Your task to perform on an android device: Open Amazon Image 0: 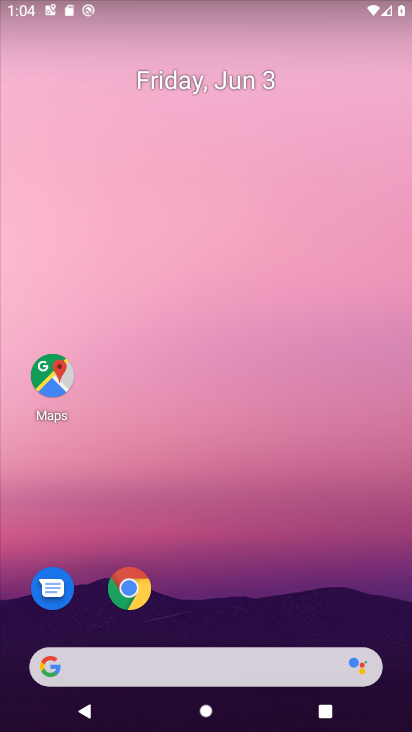
Step 0: drag from (246, 519) to (261, 116)
Your task to perform on an android device: Open Amazon Image 1: 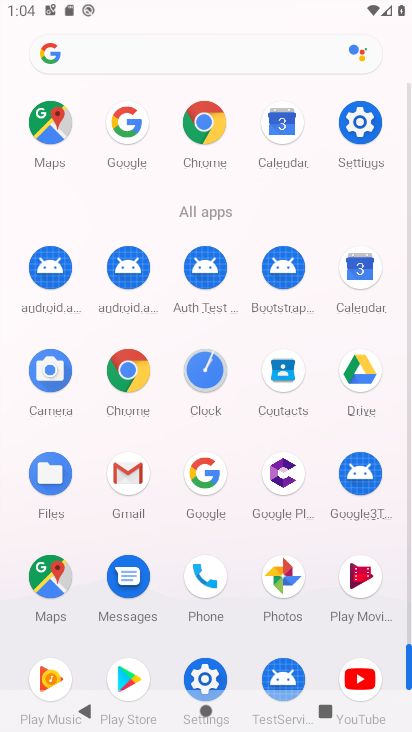
Step 1: click (205, 149)
Your task to perform on an android device: Open Amazon Image 2: 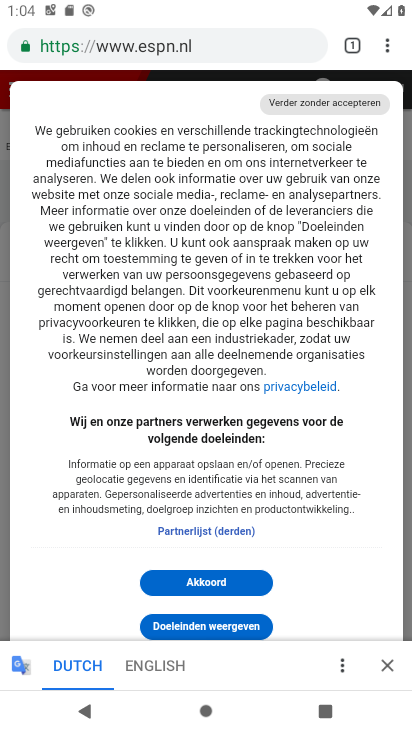
Step 2: click (257, 45)
Your task to perform on an android device: Open Amazon Image 3: 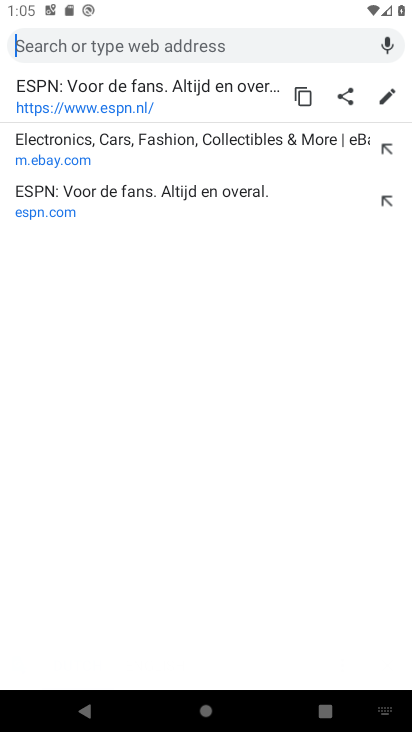
Step 3: type "amazon"
Your task to perform on an android device: Open Amazon Image 4: 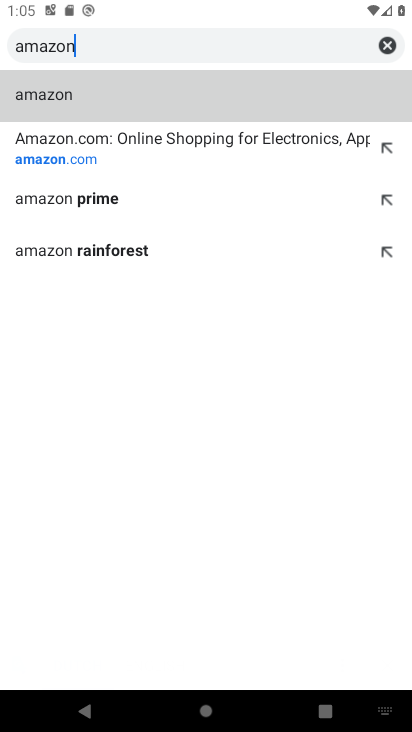
Step 4: click (260, 149)
Your task to perform on an android device: Open Amazon Image 5: 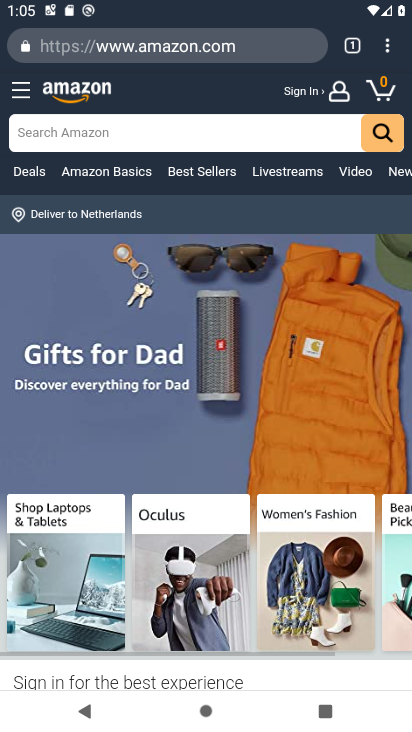
Step 5: task complete